Your task to perform on an android device: uninstall "YouTube Kids" Image 0: 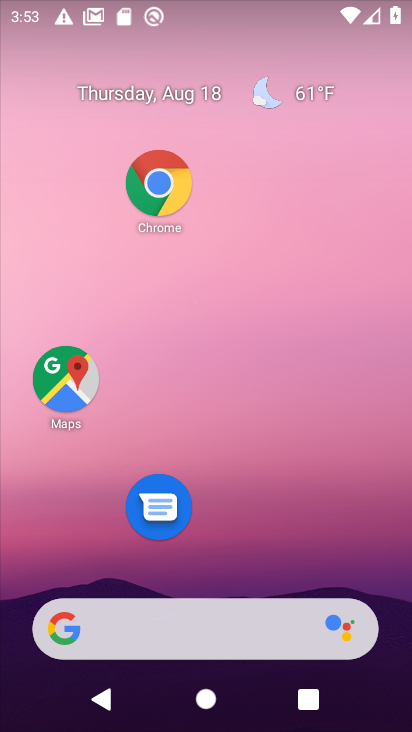
Step 0: drag from (265, 574) to (324, 155)
Your task to perform on an android device: uninstall "YouTube Kids" Image 1: 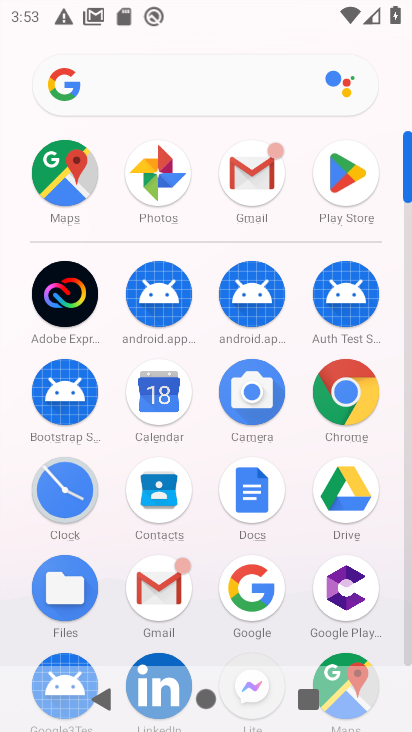
Step 1: click (362, 173)
Your task to perform on an android device: uninstall "YouTube Kids" Image 2: 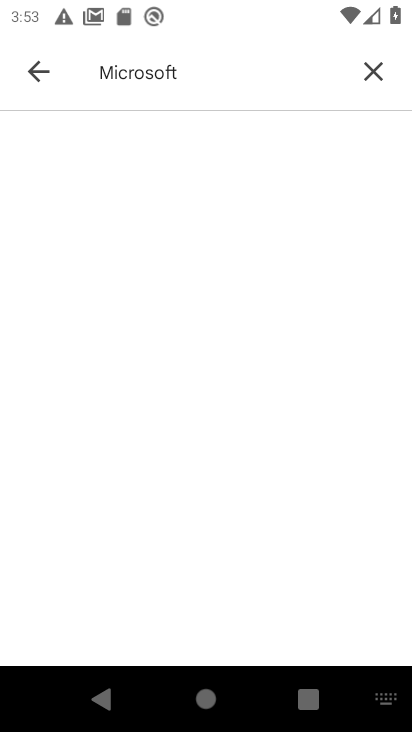
Step 2: click (377, 72)
Your task to perform on an android device: uninstall "YouTube Kids" Image 3: 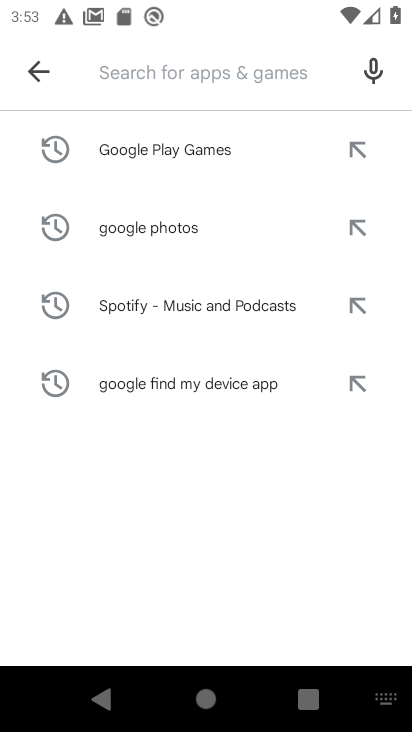
Step 3: click (155, 74)
Your task to perform on an android device: uninstall "YouTube Kids" Image 4: 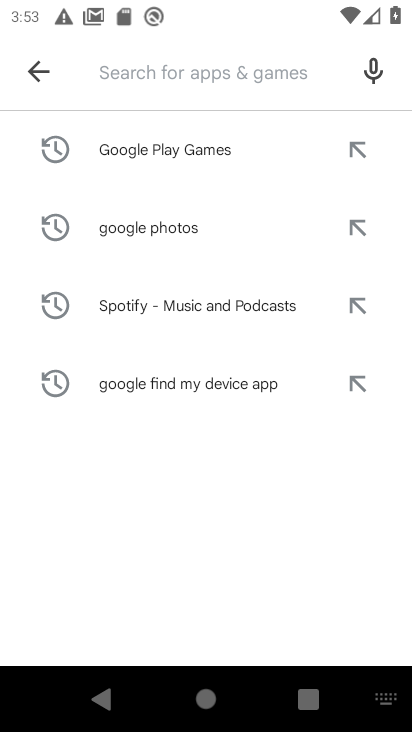
Step 4: click (125, 65)
Your task to perform on an android device: uninstall "YouTube Kids" Image 5: 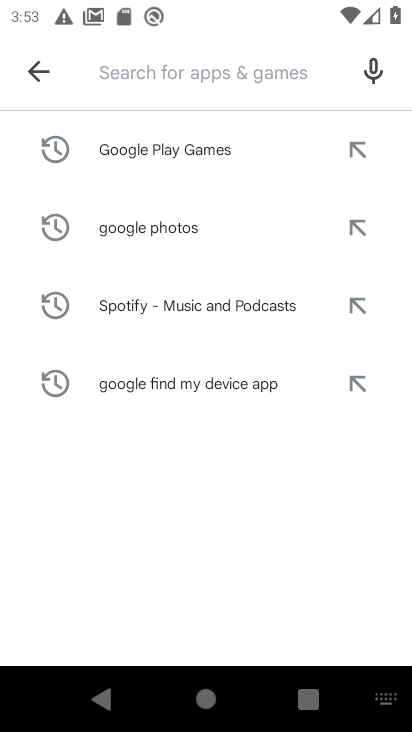
Step 5: type "YouTube Kids"
Your task to perform on an android device: uninstall "YouTube Kids" Image 6: 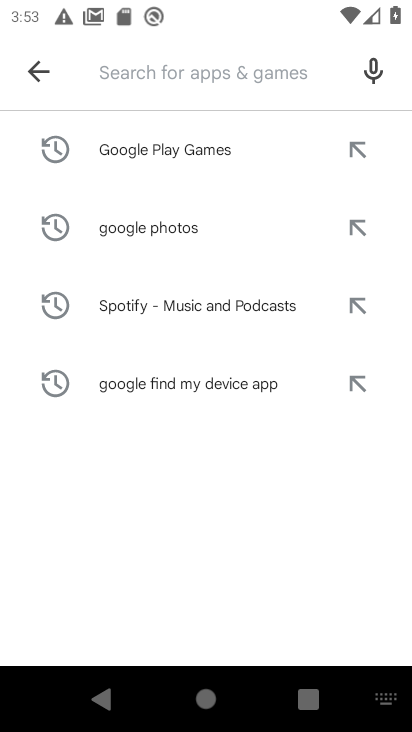
Step 6: click (249, 521)
Your task to perform on an android device: uninstall "YouTube Kids" Image 7: 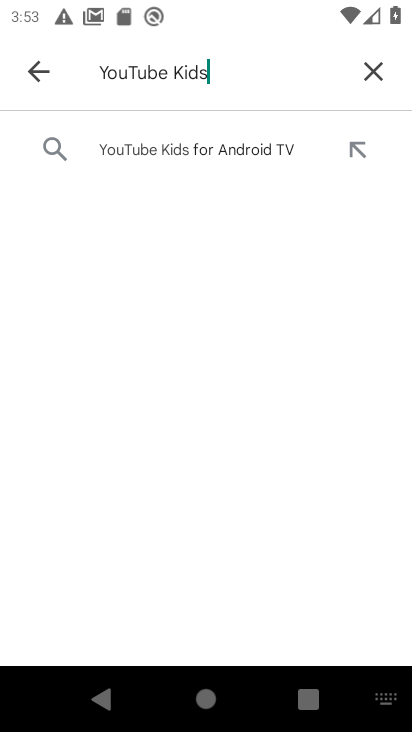
Step 7: click (219, 142)
Your task to perform on an android device: uninstall "YouTube Kids" Image 8: 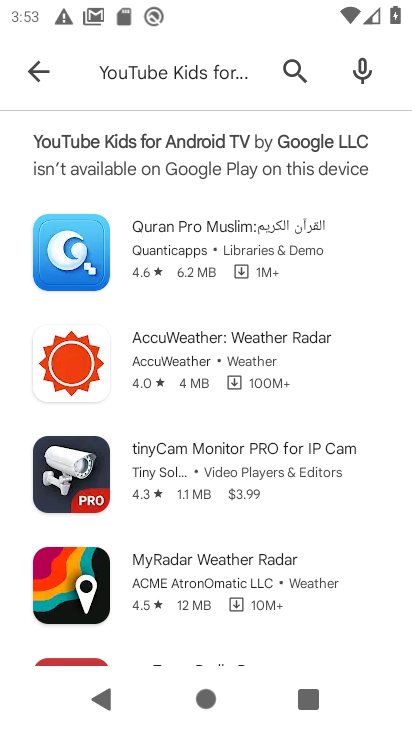
Step 8: task complete